Your task to perform on an android device: open sync settings in chrome Image 0: 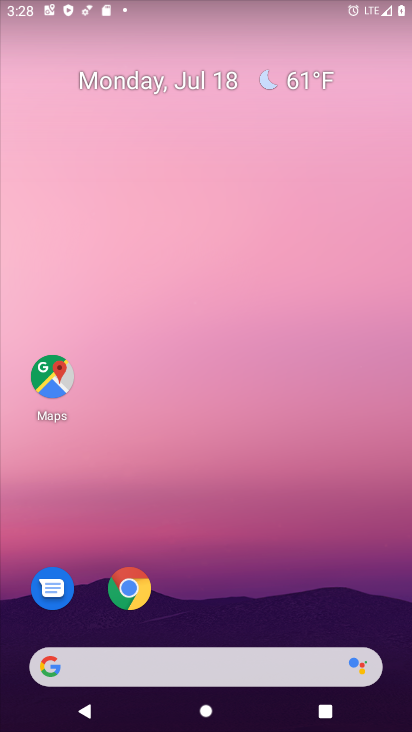
Step 0: click (133, 586)
Your task to perform on an android device: open sync settings in chrome Image 1: 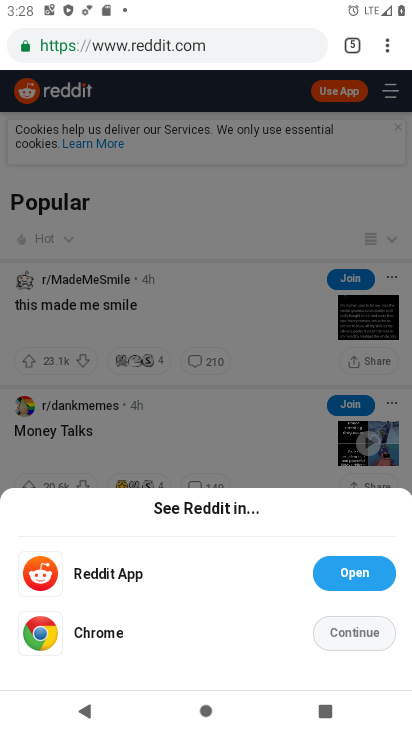
Step 1: drag from (387, 36) to (228, 533)
Your task to perform on an android device: open sync settings in chrome Image 2: 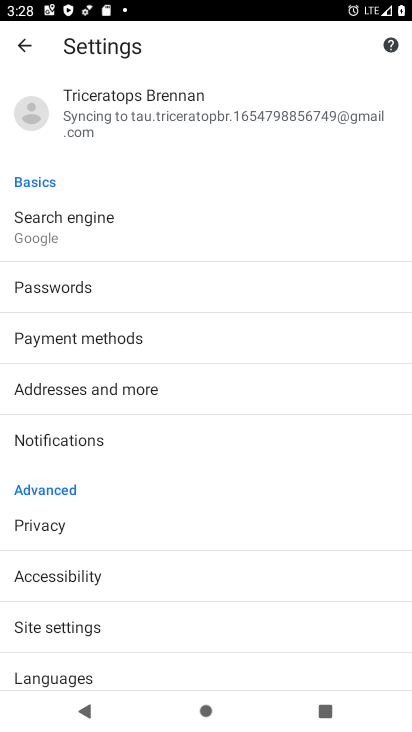
Step 2: click (99, 115)
Your task to perform on an android device: open sync settings in chrome Image 3: 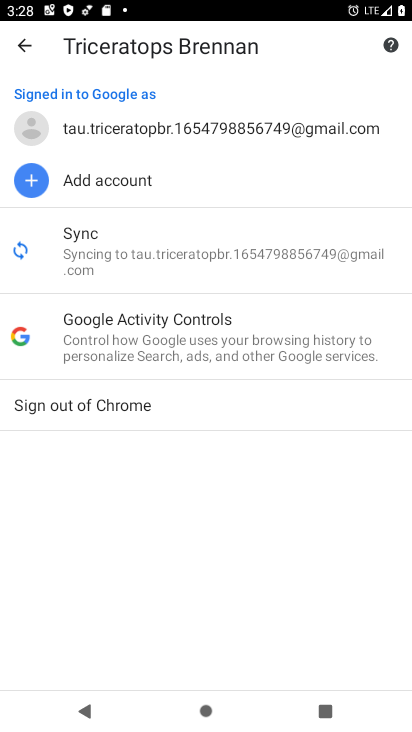
Step 3: task complete